Your task to perform on an android device: Open the calendar and show me this week's events? Image 0: 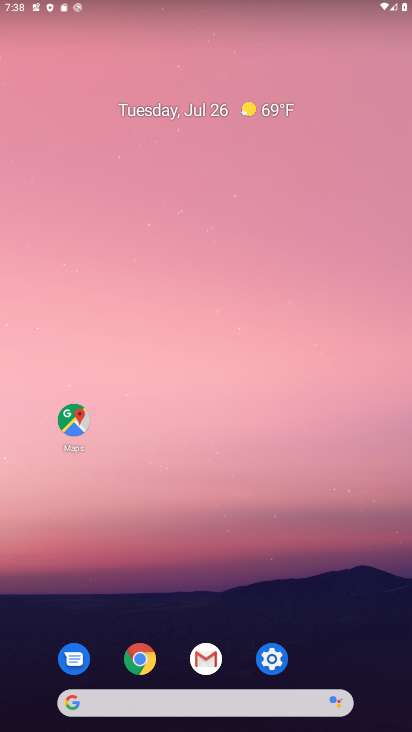
Step 0: drag from (214, 717) to (228, 227)
Your task to perform on an android device: Open the calendar and show me this week's events? Image 1: 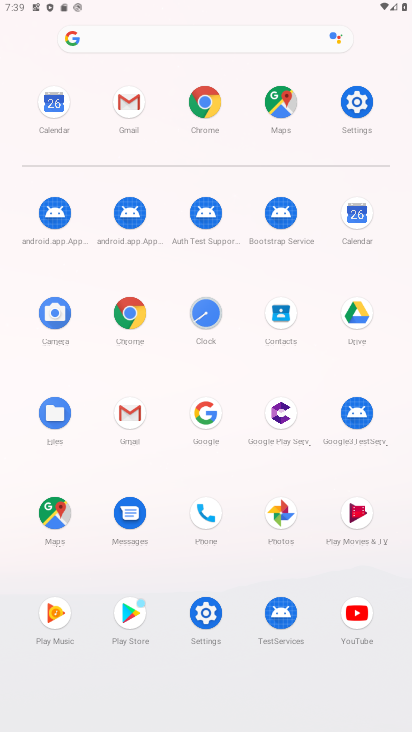
Step 1: click (354, 220)
Your task to perform on an android device: Open the calendar and show me this week's events? Image 2: 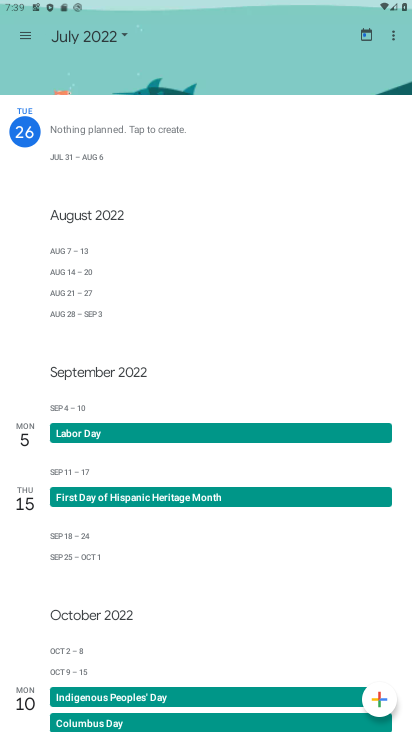
Step 2: task complete